Your task to perform on an android device: Show me the alarms in the clock app Image 0: 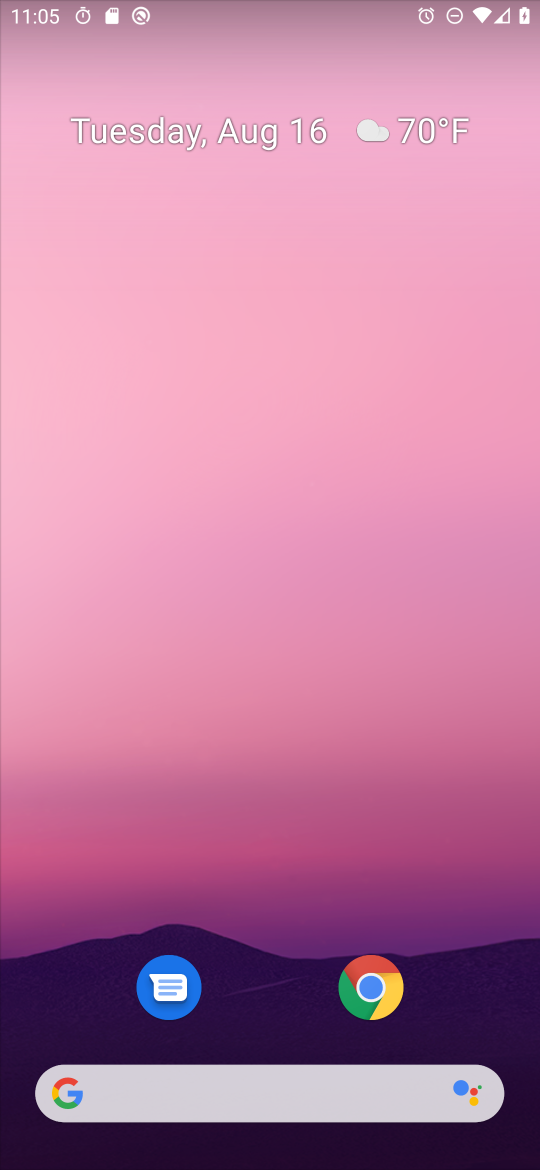
Step 0: drag from (16, 1158) to (292, 700)
Your task to perform on an android device: Show me the alarms in the clock app Image 1: 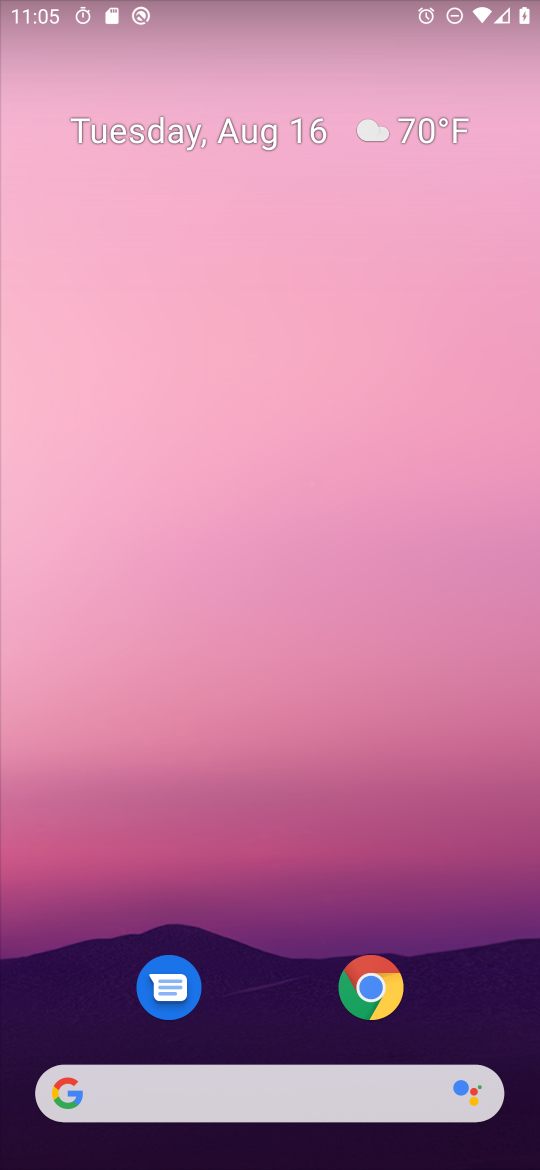
Step 1: drag from (16, 1152) to (295, 586)
Your task to perform on an android device: Show me the alarms in the clock app Image 2: 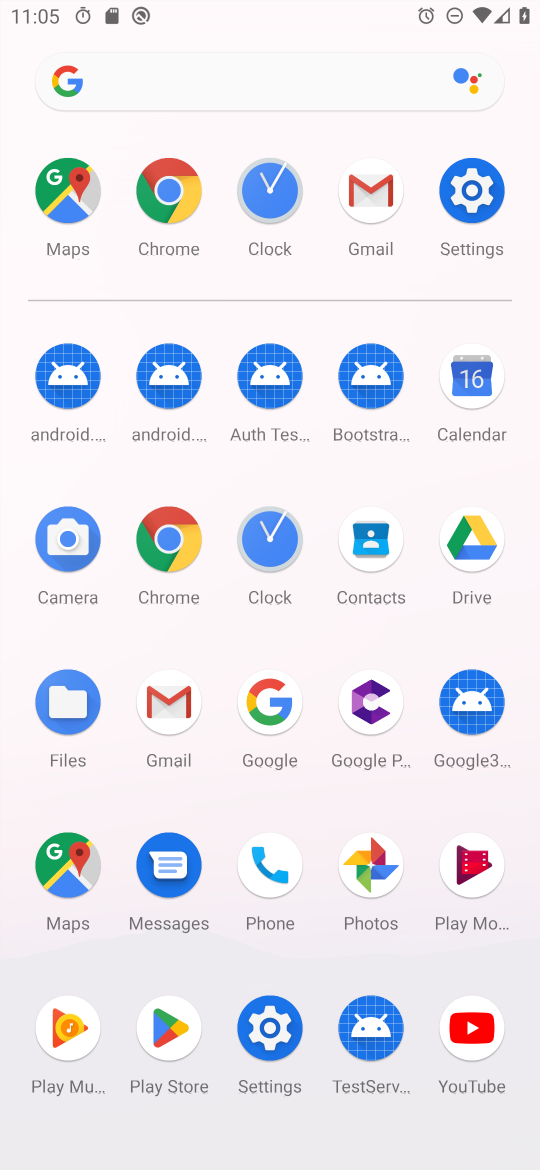
Step 2: click (281, 565)
Your task to perform on an android device: Show me the alarms in the clock app Image 3: 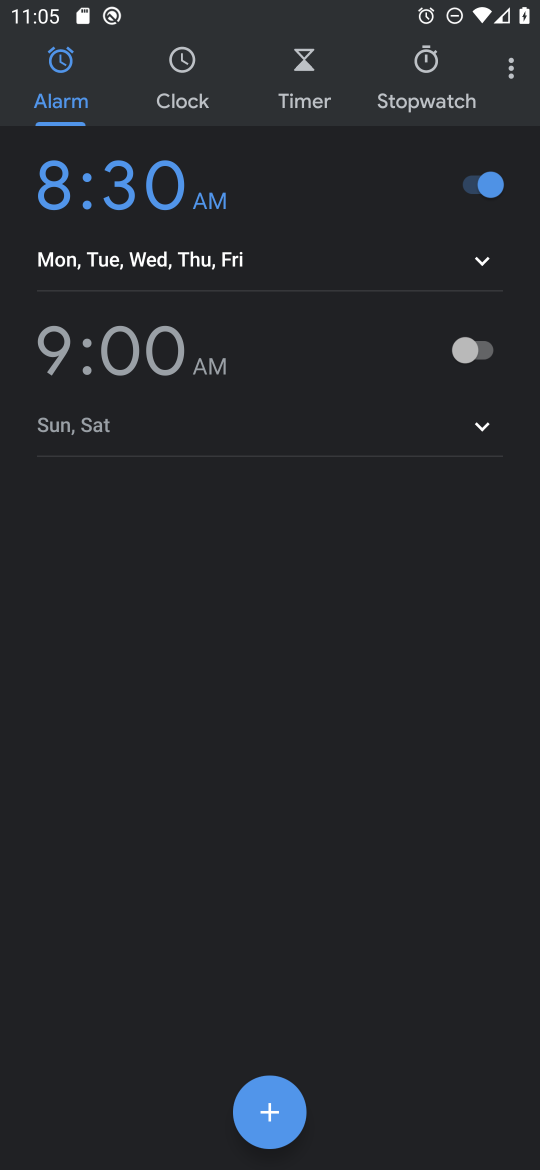
Step 3: task complete